Your task to perform on an android device: Show me productivity apps on the Play Store Image 0: 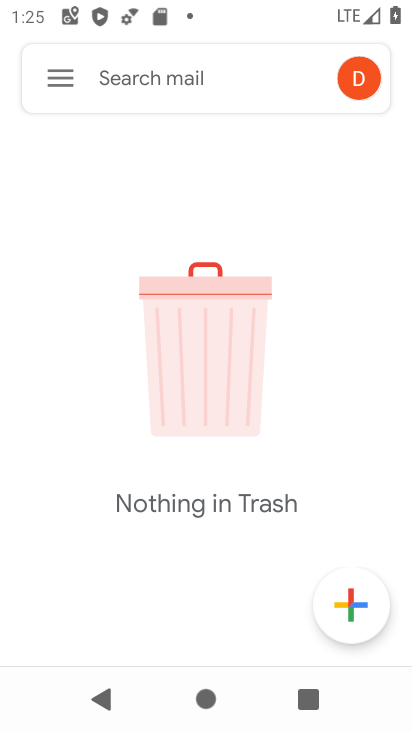
Step 0: press home button
Your task to perform on an android device: Show me productivity apps on the Play Store Image 1: 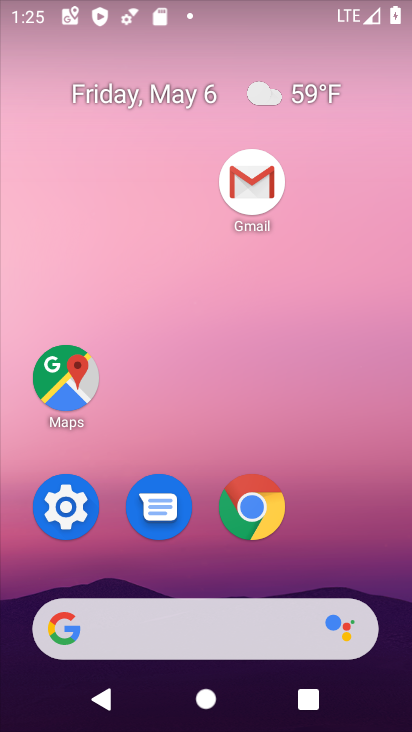
Step 1: drag from (346, 530) to (304, 28)
Your task to perform on an android device: Show me productivity apps on the Play Store Image 2: 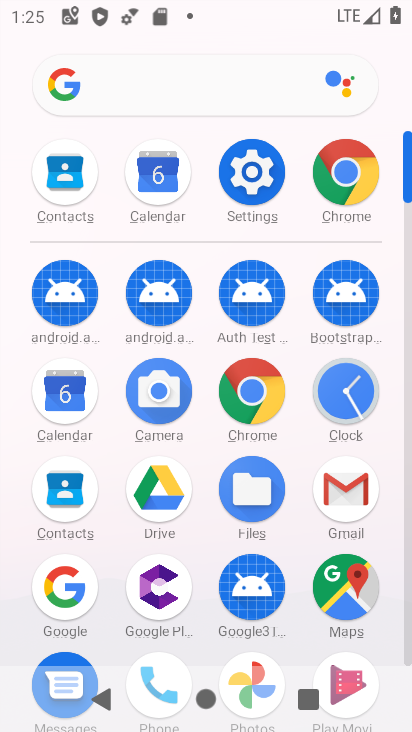
Step 2: drag from (203, 564) to (208, 204)
Your task to perform on an android device: Show me productivity apps on the Play Store Image 3: 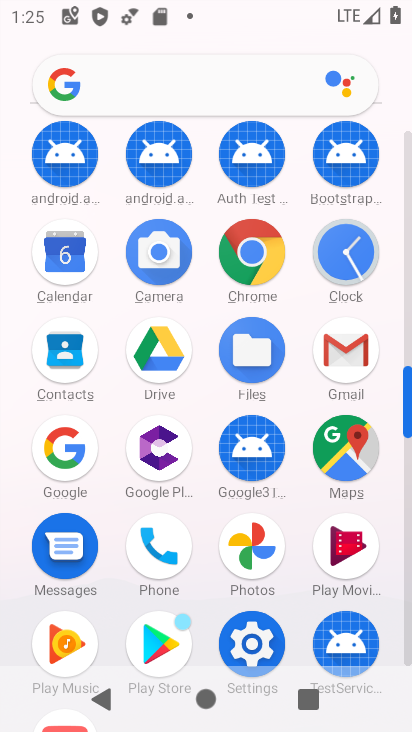
Step 3: drag from (198, 529) to (199, 152)
Your task to perform on an android device: Show me productivity apps on the Play Store Image 4: 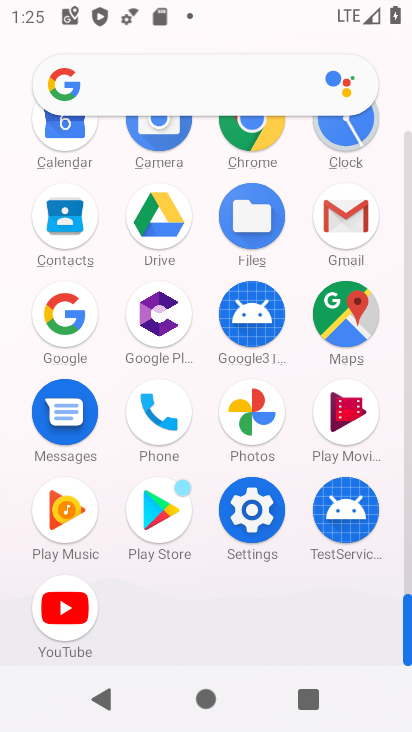
Step 4: click (162, 525)
Your task to perform on an android device: Show me productivity apps on the Play Store Image 5: 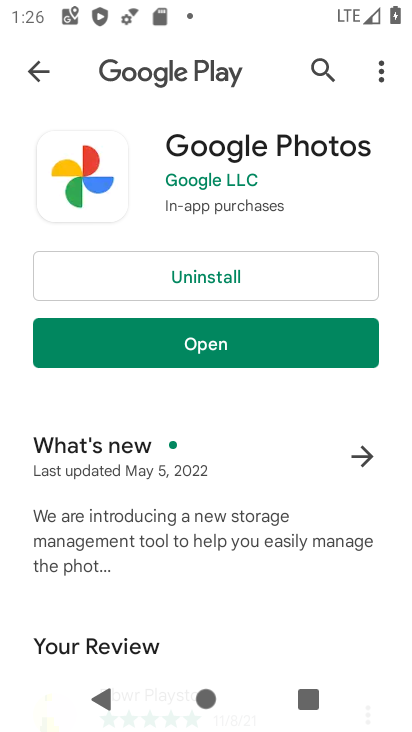
Step 5: click (34, 63)
Your task to perform on an android device: Show me productivity apps on the Play Store Image 6: 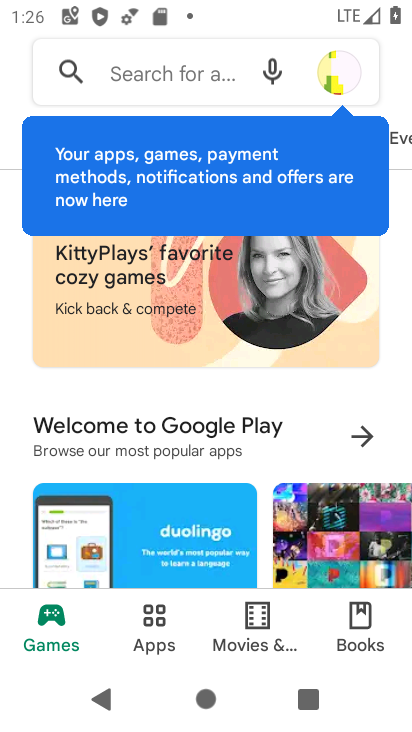
Step 6: click (151, 620)
Your task to perform on an android device: Show me productivity apps on the Play Store Image 7: 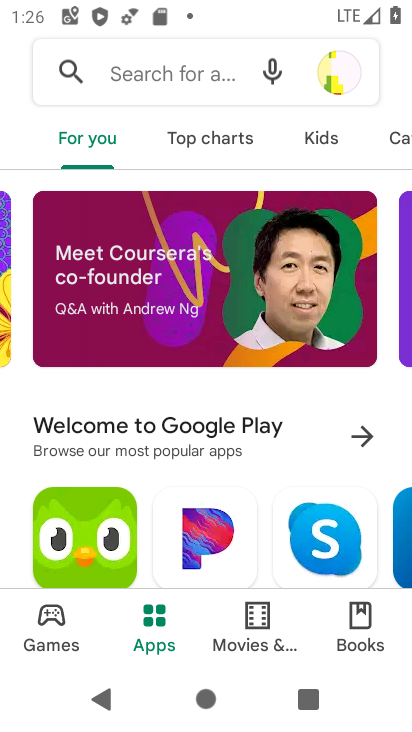
Step 7: task complete